Your task to perform on an android device: Open calendar and show me the third week of next month Image 0: 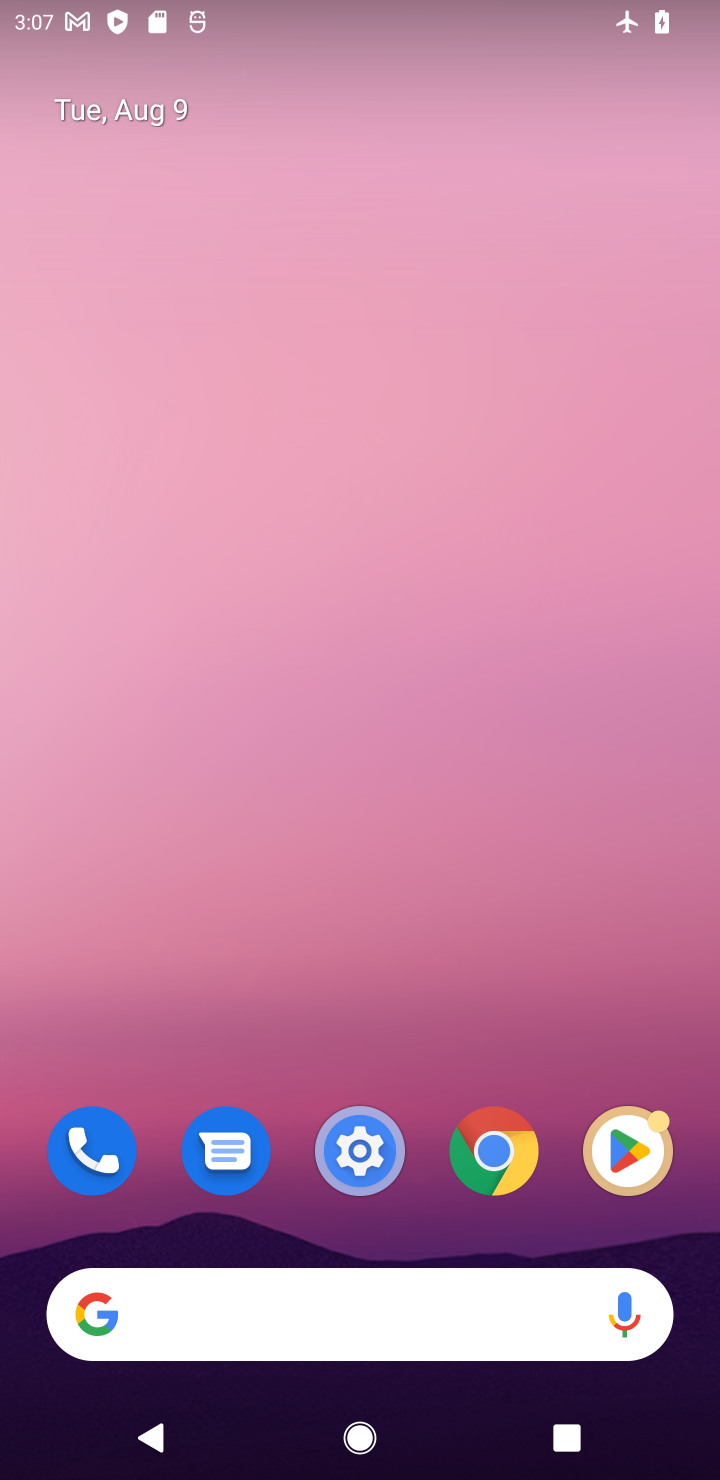
Step 0: drag from (523, 948) to (687, 37)
Your task to perform on an android device: Open calendar and show me the third week of next month Image 1: 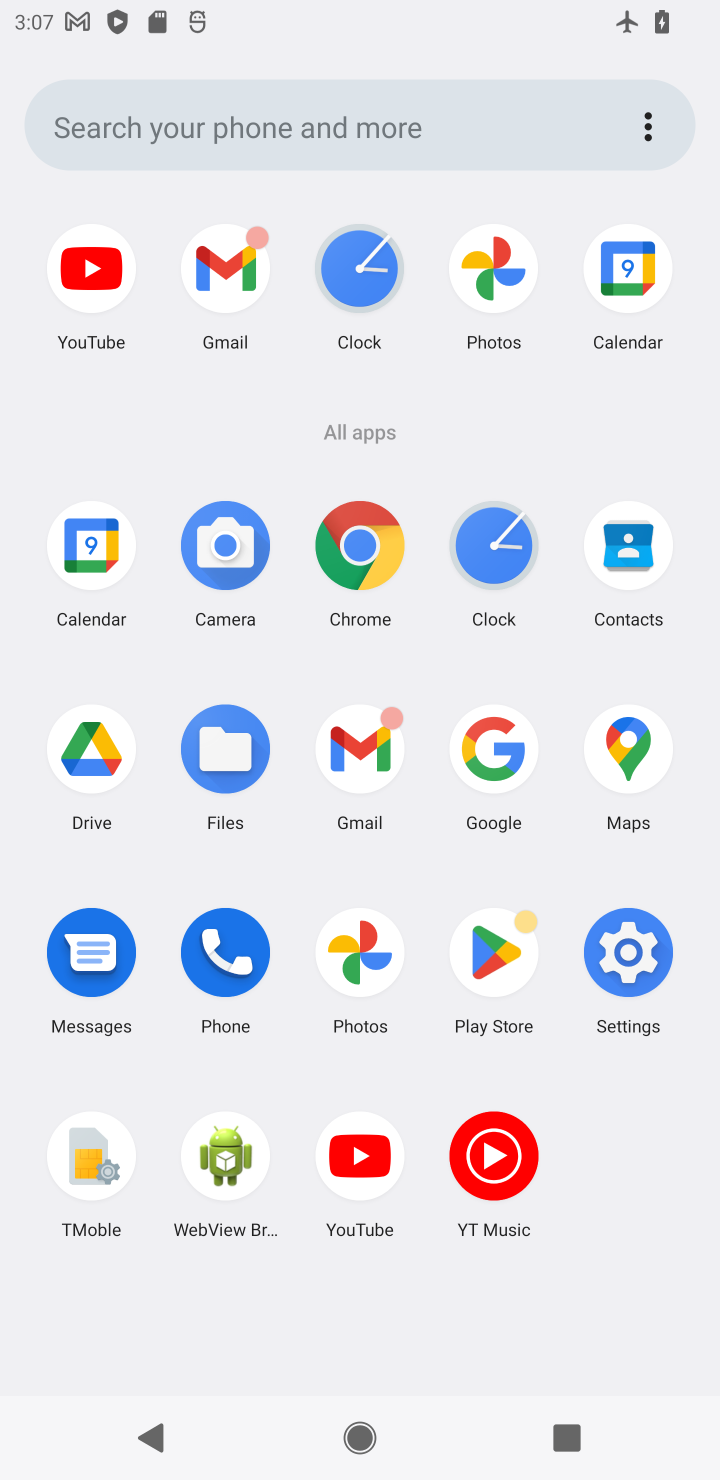
Step 1: click (641, 253)
Your task to perform on an android device: Open calendar and show me the third week of next month Image 2: 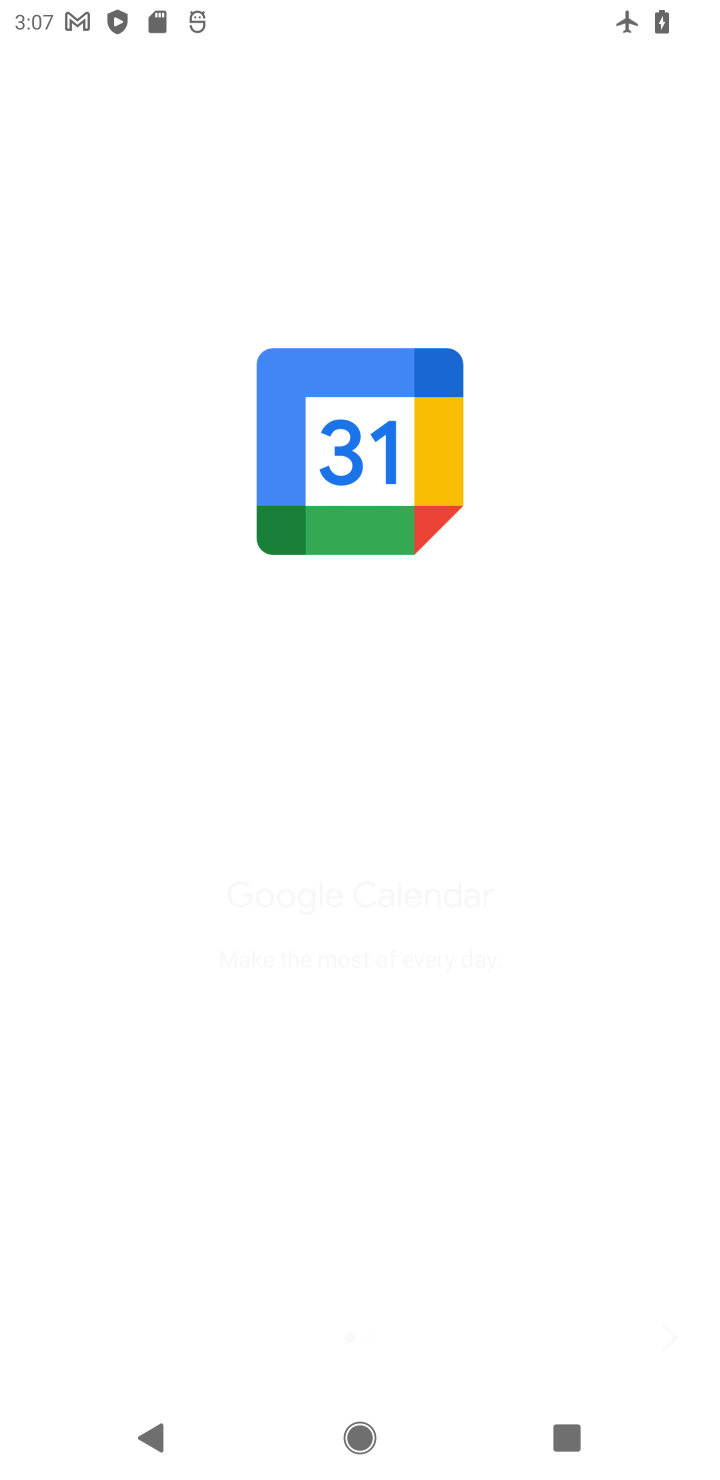
Step 2: click (641, 253)
Your task to perform on an android device: Open calendar and show me the third week of next month Image 3: 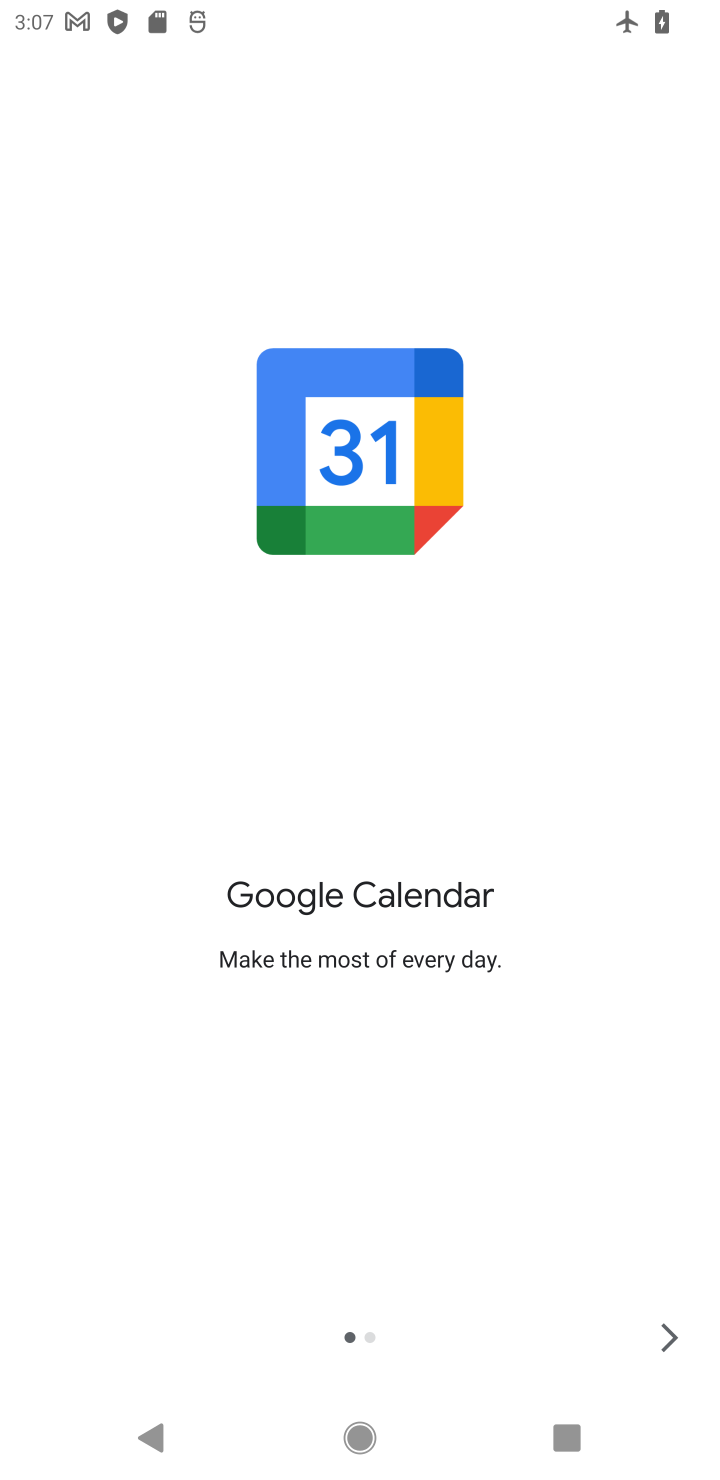
Step 3: click (679, 1334)
Your task to perform on an android device: Open calendar and show me the third week of next month Image 4: 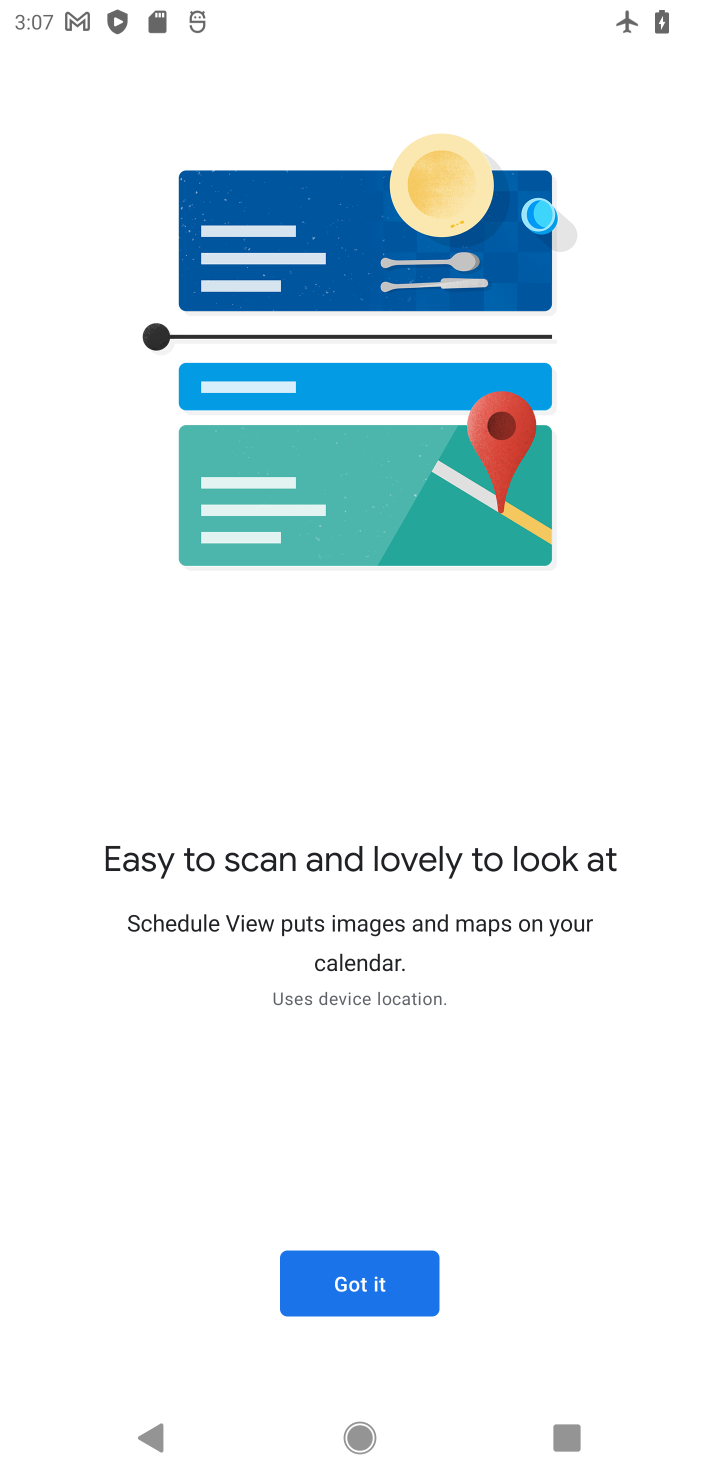
Step 4: click (363, 1291)
Your task to perform on an android device: Open calendar and show me the third week of next month Image 5: 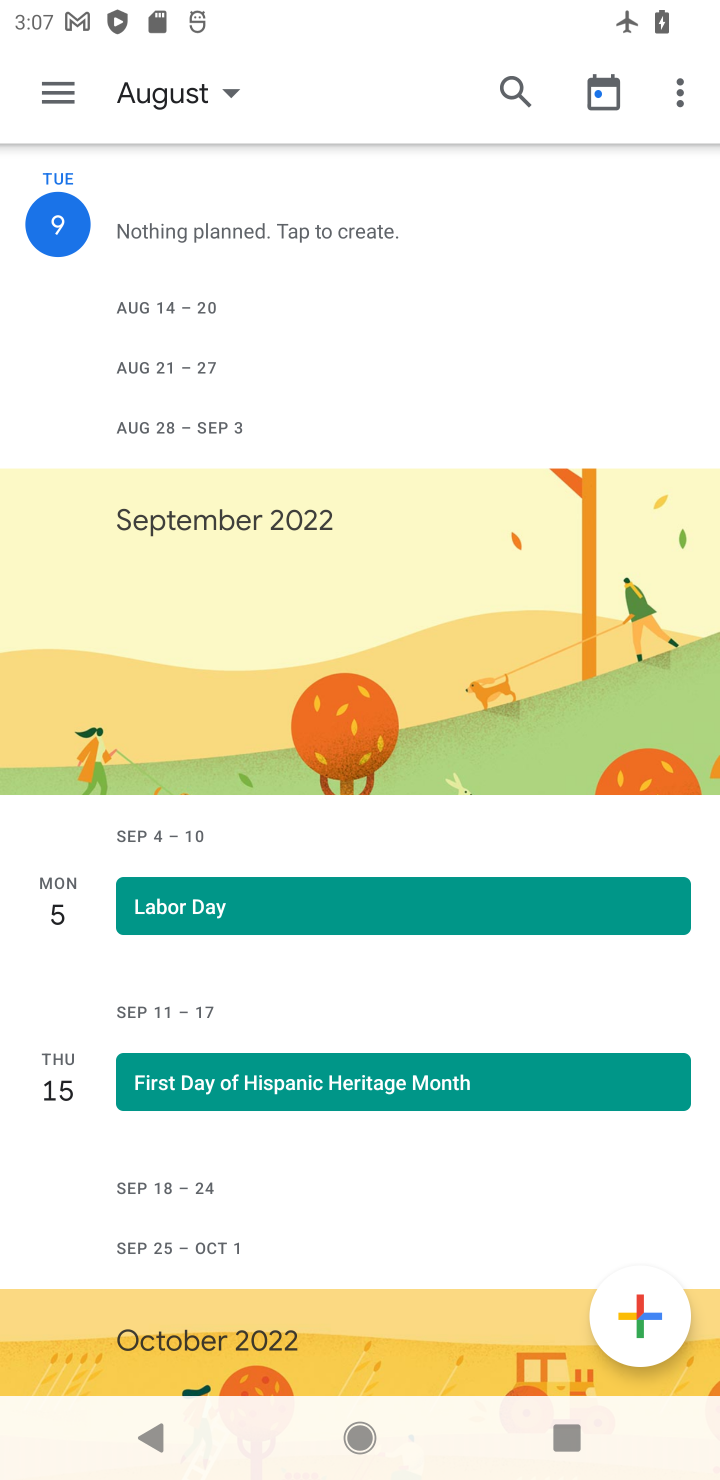
Step 5: click (142, 83)
Your task to perform on an android device: Open calendar and show me the third week of next month Image 6: 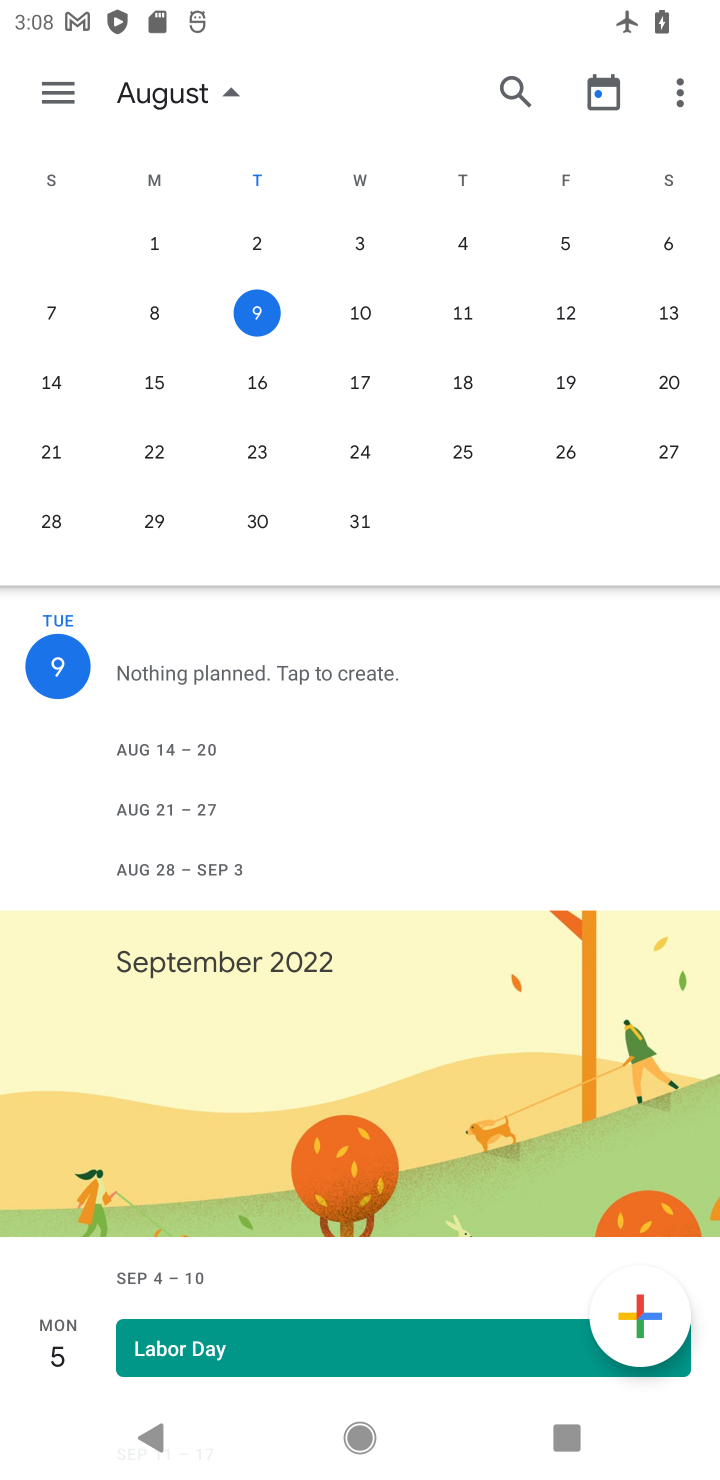
Step 6: drag from (619, 445) to (87, 468)
Your task to perform on an android device: Open calendar and show me the third week of next month Image 7: 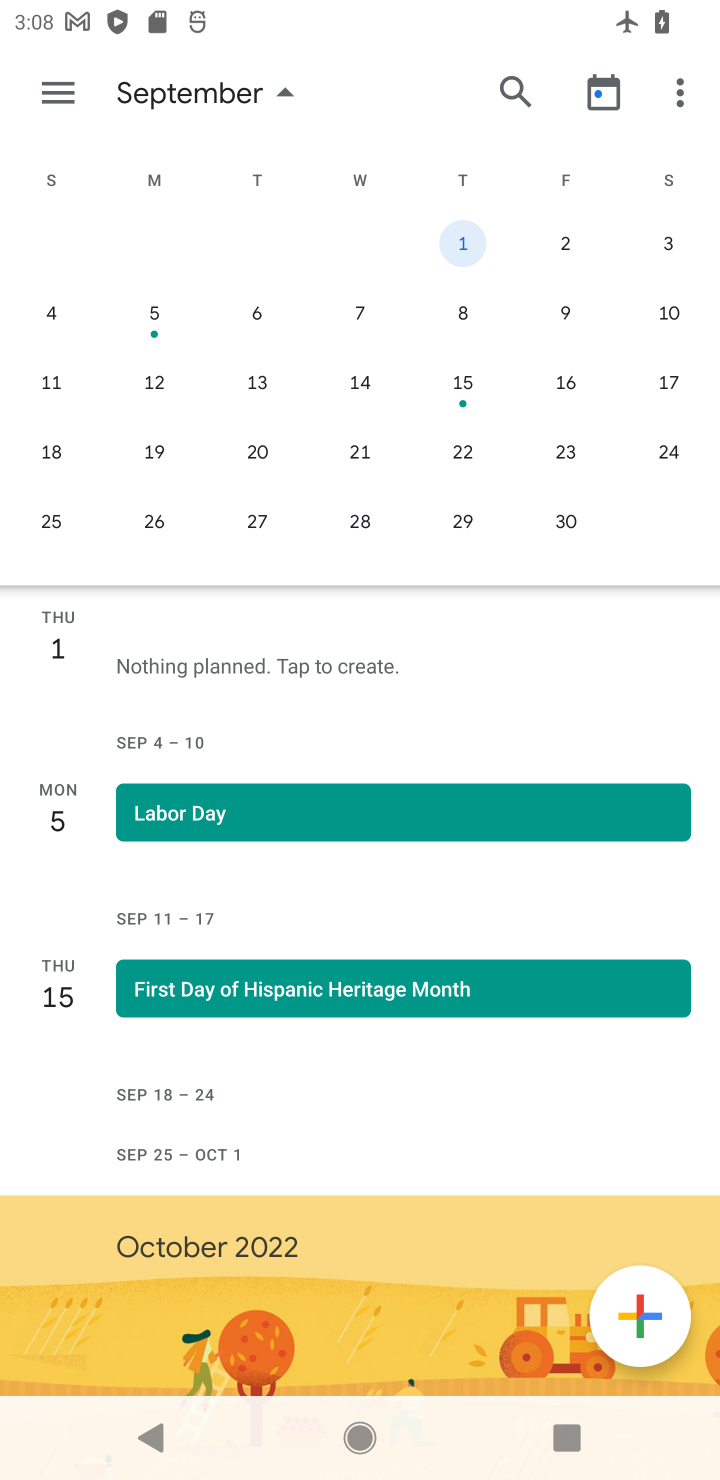
Step 7: click (56, 380)
Your task to perform on an android device: Open calendar and show me the third week of next month Image 8: 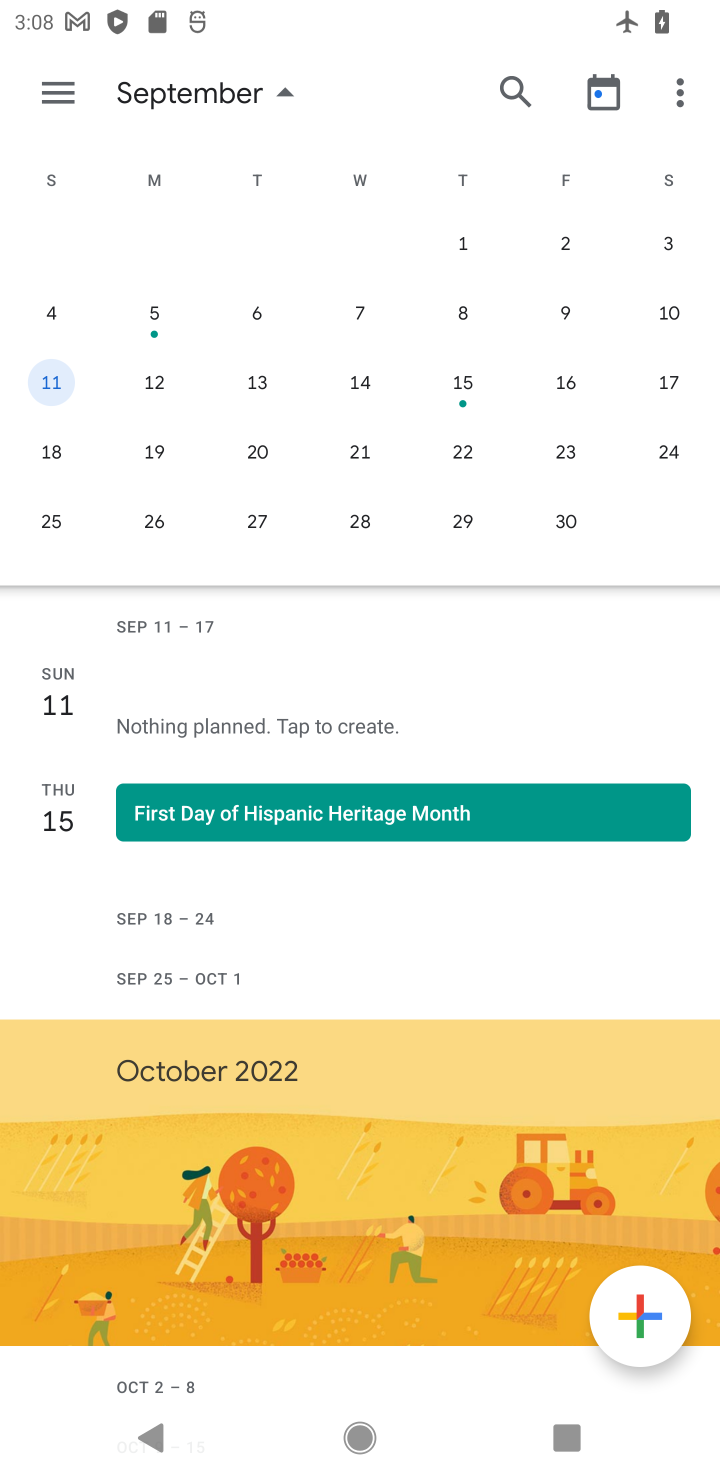
Step 8: task complete